Your task to perform on an android device: Open maps Image 0: 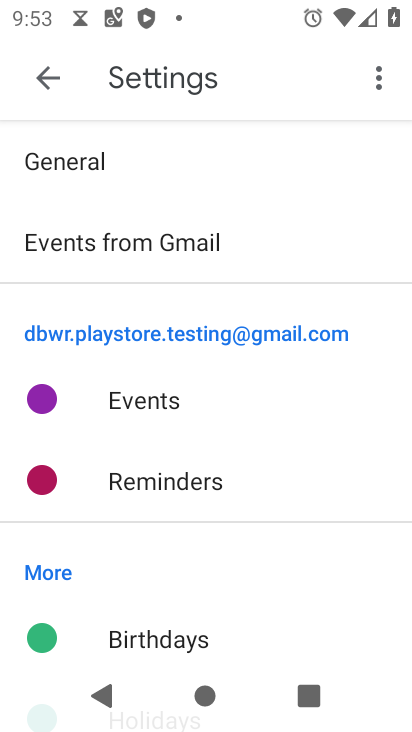
Step 0: press home button
Your task to perform on an android device: Open maps Image 1: 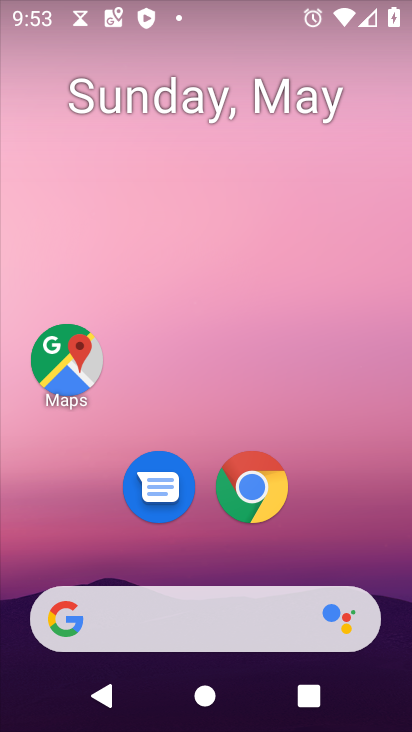
Step 1: click (74, 324)
Your task to perform on an android device: Open maps Image 2: 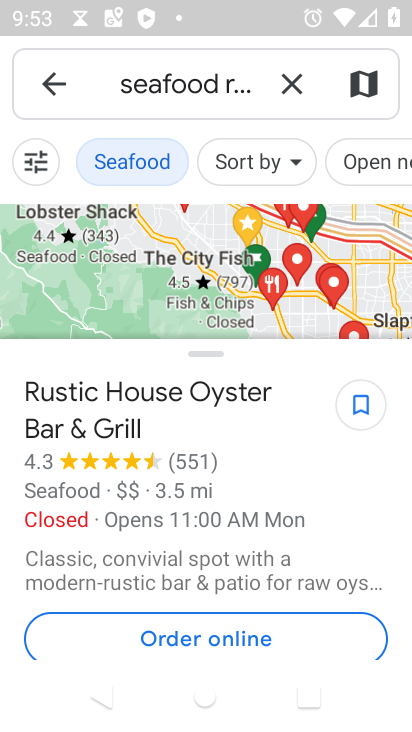
Step 2: task complete